Your task to perform on an android device: Go to location settings Image 0: 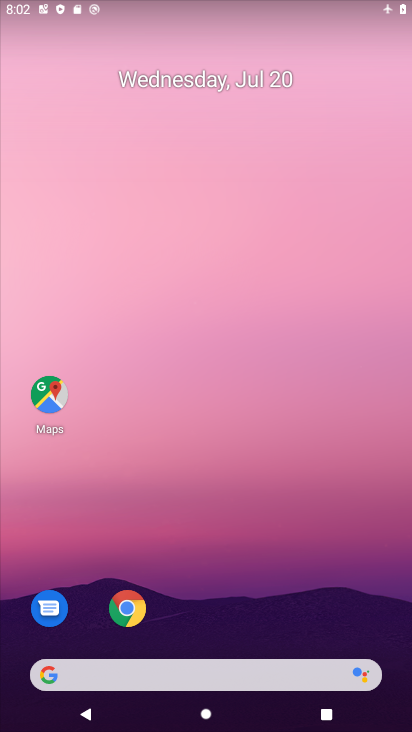
Step 0: drag from (209, 622) to (294, 7)
Your task to perform on an android device: Go to location settings Image 1: 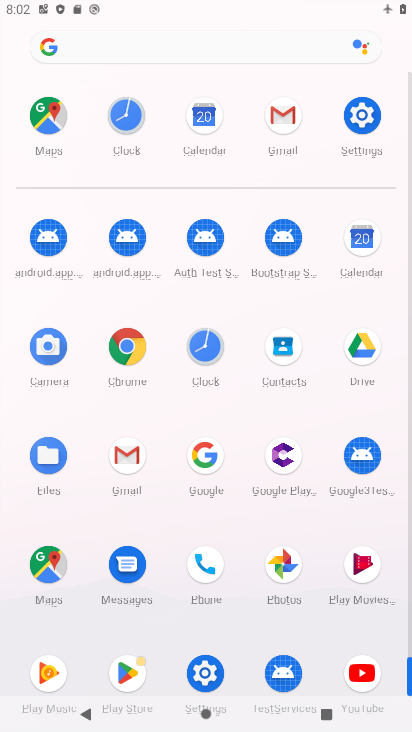
Step 1: click (366, 113)
Your task to perform on an android device: Go to location settings Image 2: 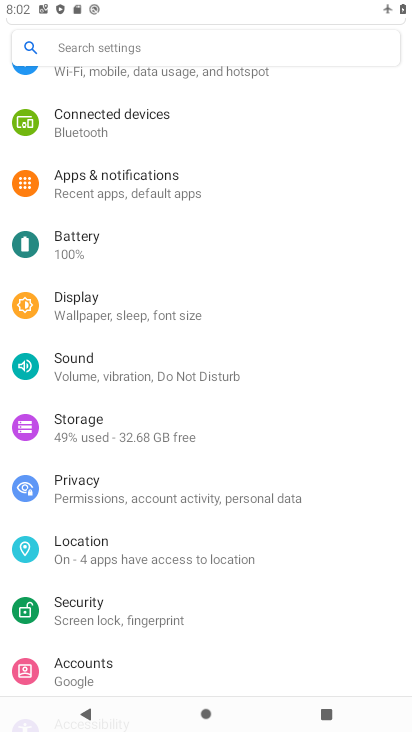
Step 2: click (119, 549)
Your task to perform on an android device: Go to location settings Image 3: 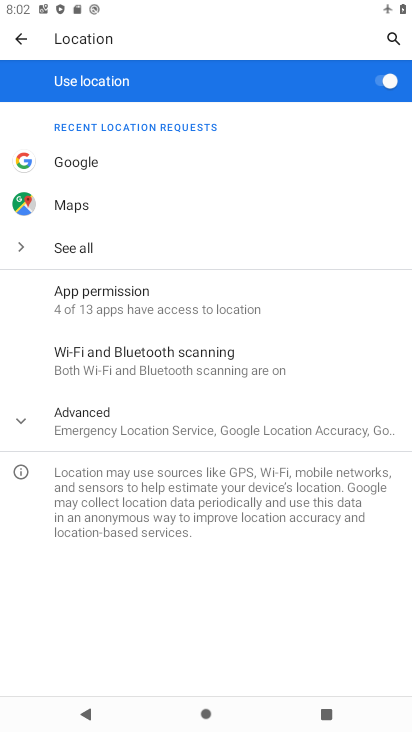
Step 3: task complete